Your task to perform on an android device: When is my next meeting? Image 0: 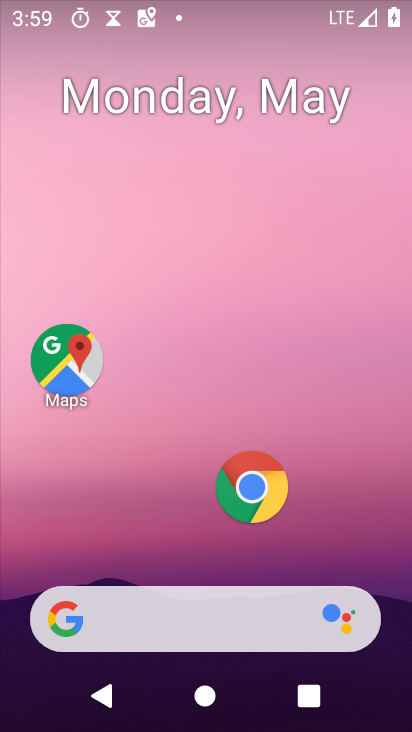
Step 0: drag from (164, 557) to (175, 0)
Your task to perform on an android device: When is my next meeting? Image 1: 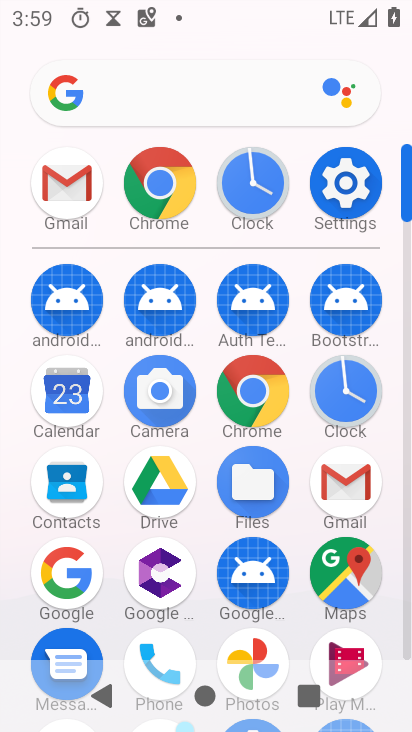
Step 1: click (60, 395)
Your task to perform on an android device: When is my next meeting? Image 2: 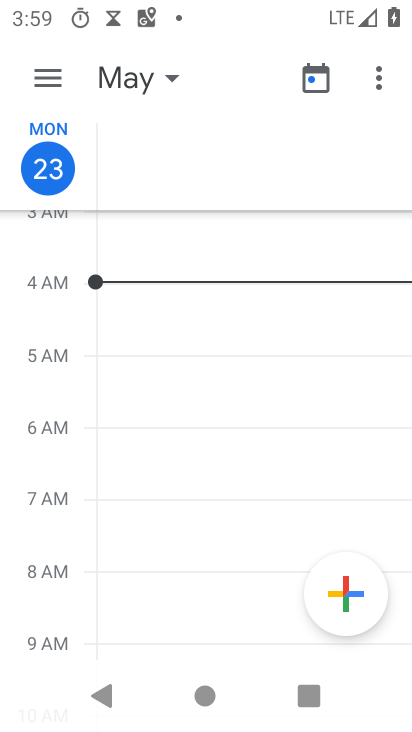
Step 2: click (152, 81)
Your task to perform on an android device: When is my next meeting? Image 3: 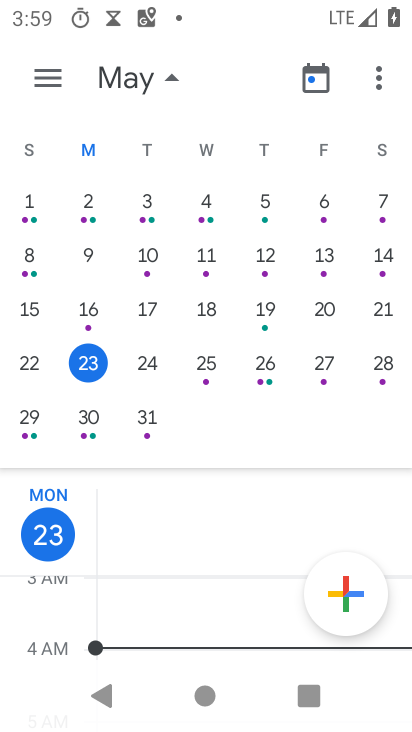
Step 3: click (94, 365)
Your task to perform on an android device: When is my next meeting? Image 4: 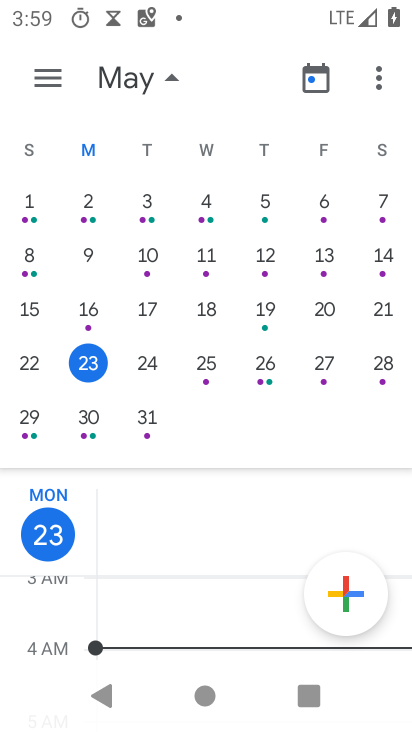
Step 4: drag from (167, 467) to (231, 149)
Your task to perform on an android device: When is my next meeting? Image 5: 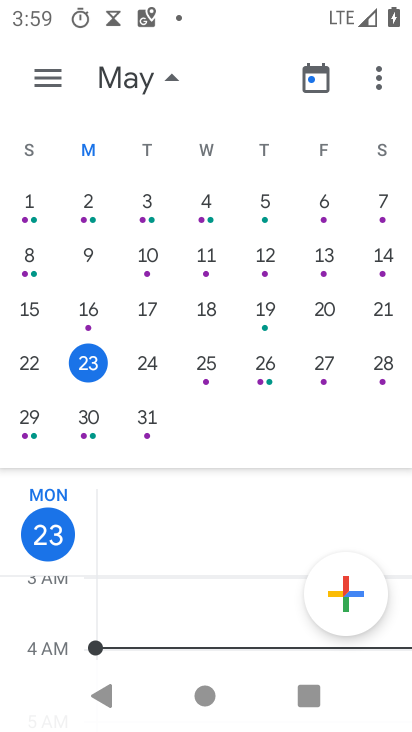
Step 5: click (60, 80)
Your task to perform on an android device: When is my next meeting? Image 6: 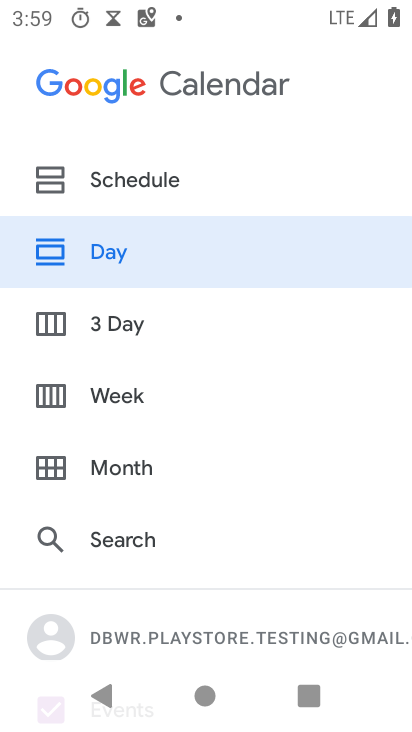
Step 6: click (185, 186)
Your task to perform on an android device: When is my next meeting? Image 7: 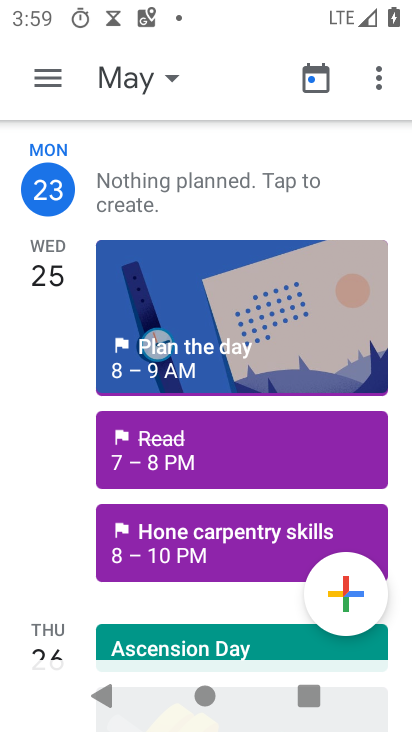
Step 7: click (157, 74)
Your task to perform on an android device: When is my next meeting? Image 8: 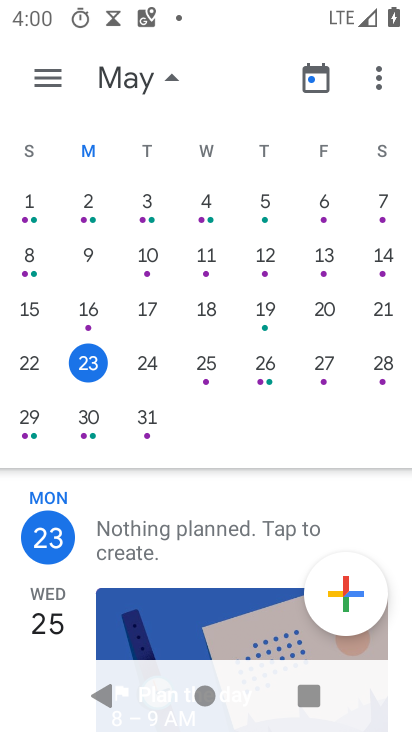
Step 8: click (93, 374)
Your task to perform on an android device: When is my next meeting? Image 9: 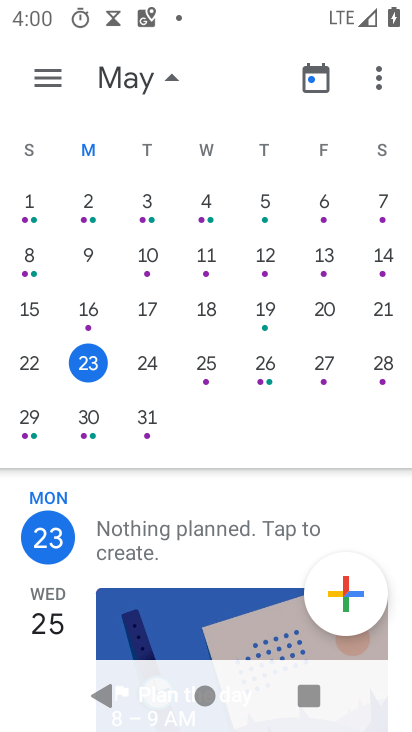
Step 9: task complete